Your task to perform on an android device: Check the weather Image 0: 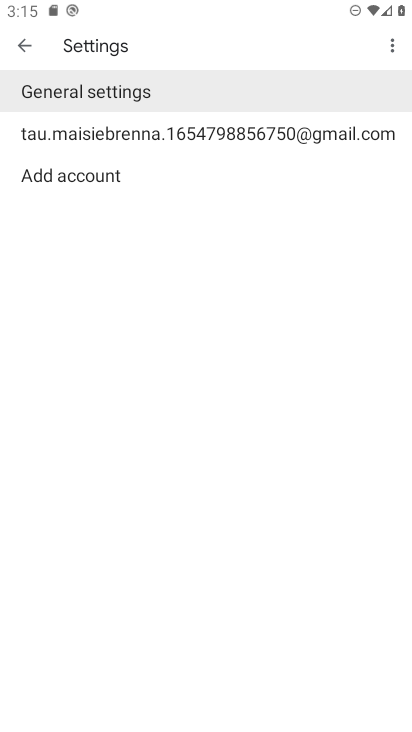
Step 0: press back button
Your task to perform on an android device: Check the weather Image 1: 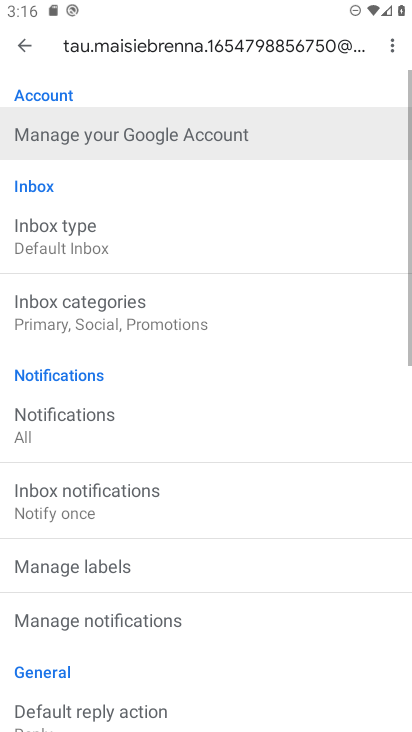
Step 1: press back button
Your task to perform on an android device: Check the weather Image 2: 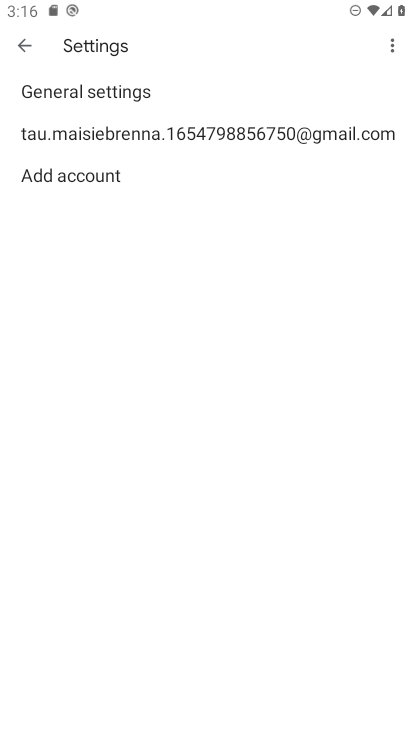
Step 2: press back button
Your task to perform on an android device: Check the weather Image 3: 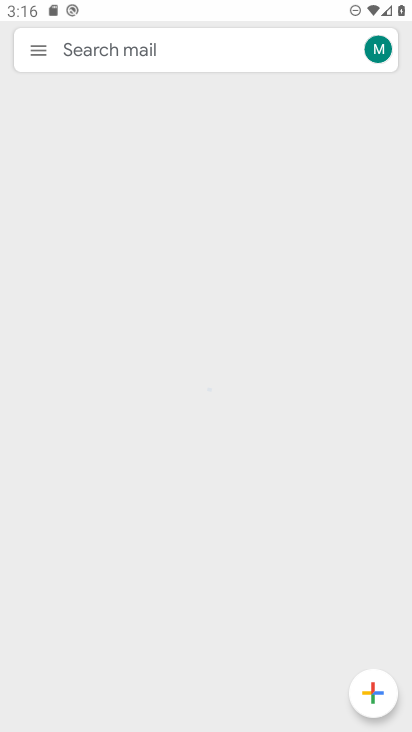
Step 3: press back button
Your task to perform on an android device: Check the weather Image 4: 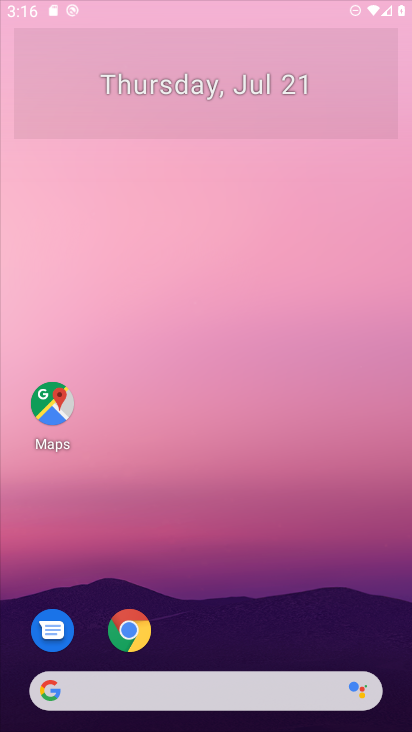
Step 4: press back button
Your task to perform on an android device: Check the weather Image 5: 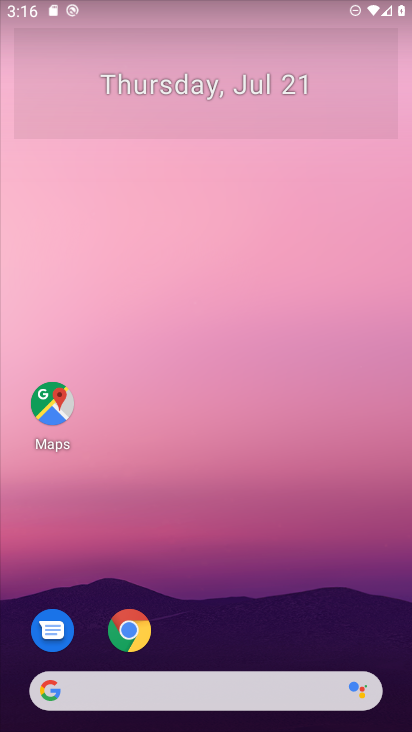
Step 5: click (180, 702)
Your task to perform on an android device: Check the weather Image 6: 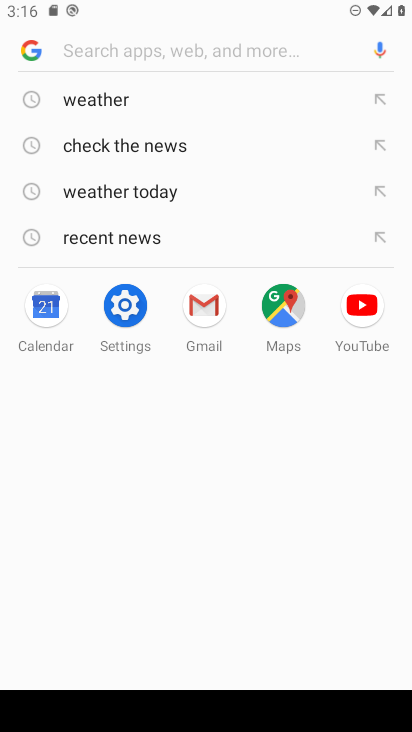
Step 6: click (97, 97)
Your task to perform on an android device: Check the weather Image 7: 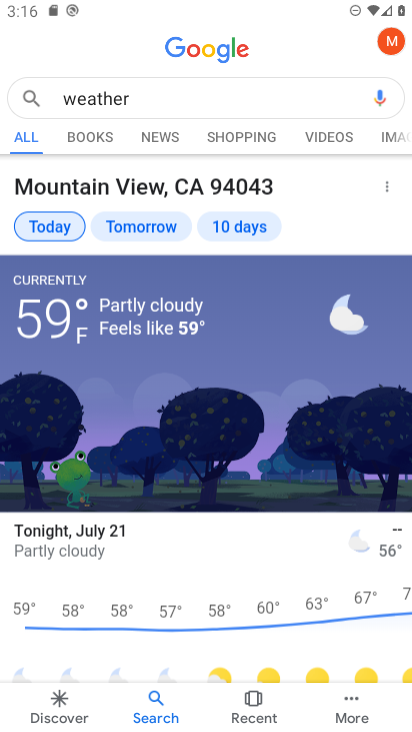
Step 7: task complete